Your task to perform on an android device: Open Google Maps and go to "Timeline" Image 0: 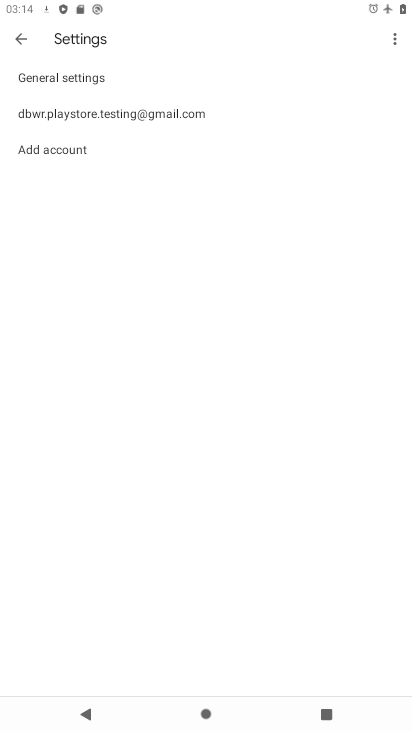
Step 0: press home button
Your task to perform on an android device: Open Google Maps and go to "Timeline" Image 1: 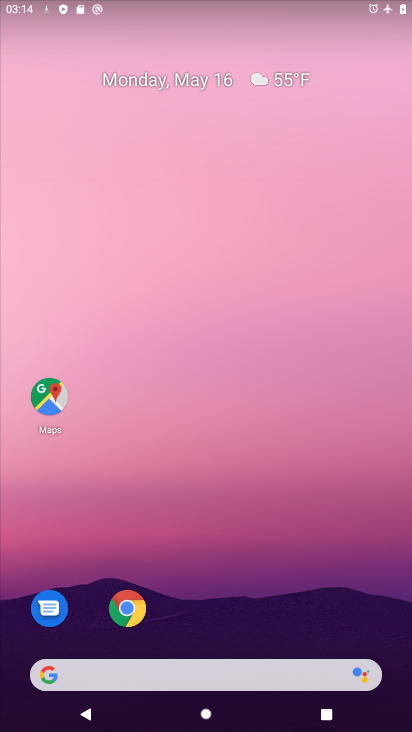
Step 1: click (33, 394)
Your task to perform on an android device: Open Google Maps and go to "Timeline" Image 2: 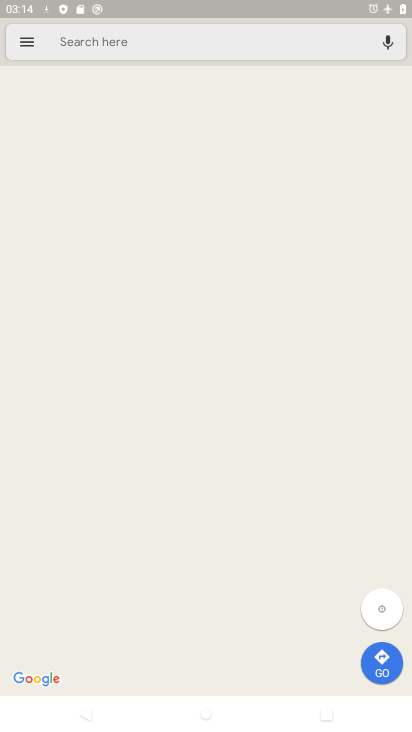
Step 2: click (32, 50)
Your task to perform on an android device: Open Google Maps and go to "Timeline" Image 3: 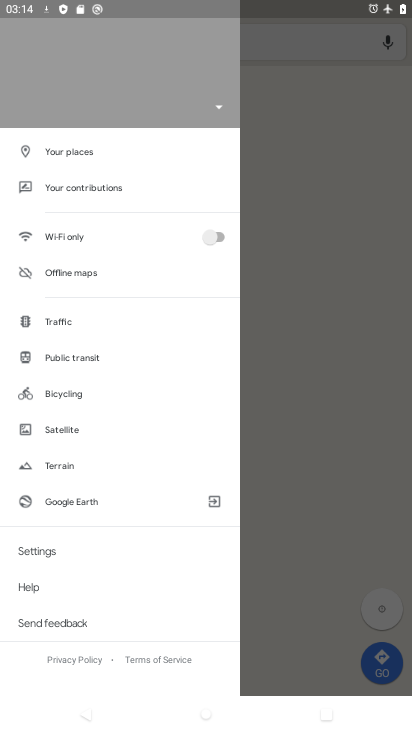
Step 3: click (95, 182)
Your task to perform on an android device: Open Google Maps and go to "Timeline" Image 4: 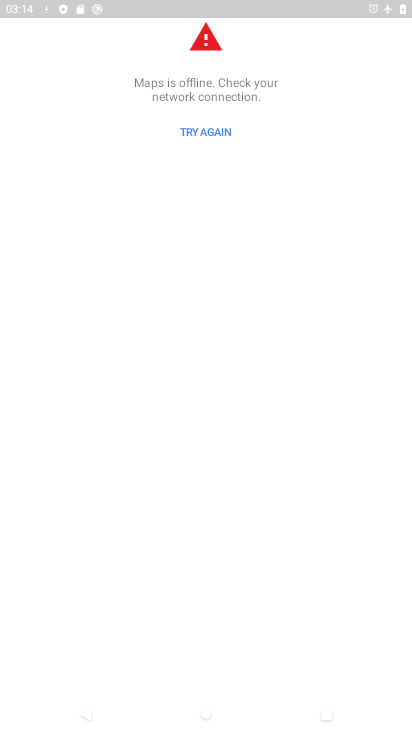
Step 4: task complete